Your task to perform on an android device: check android version Image 0: 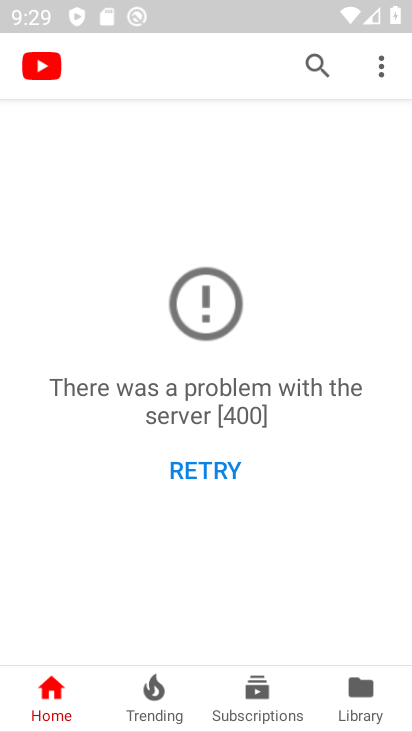
Step 0: press home button
Your task to perform on an android device: check android version Image 1: 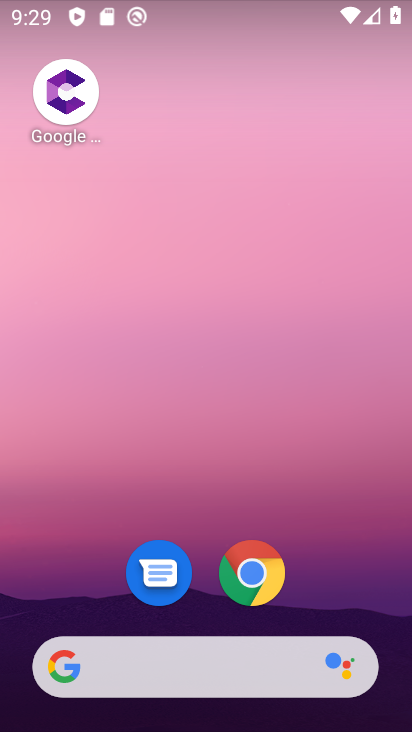
Step 1: drag from (199, 609) to (179, 180)
Your task to perform on an android device: check android version Image 2: 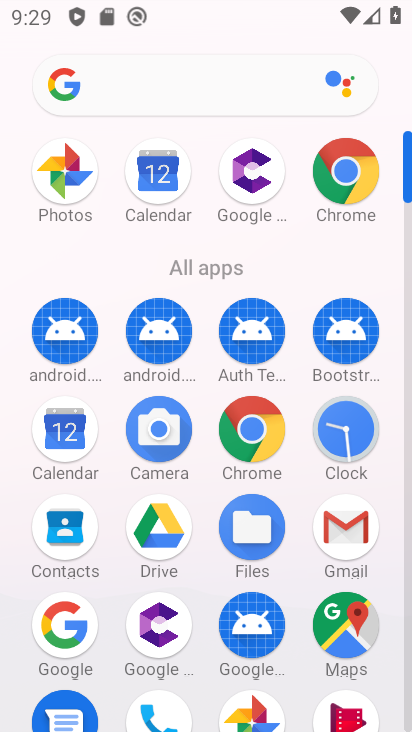
Step 2: drag from (219, 626) to (212, 403)
Your task to perform on an android device: check android version Image 3: 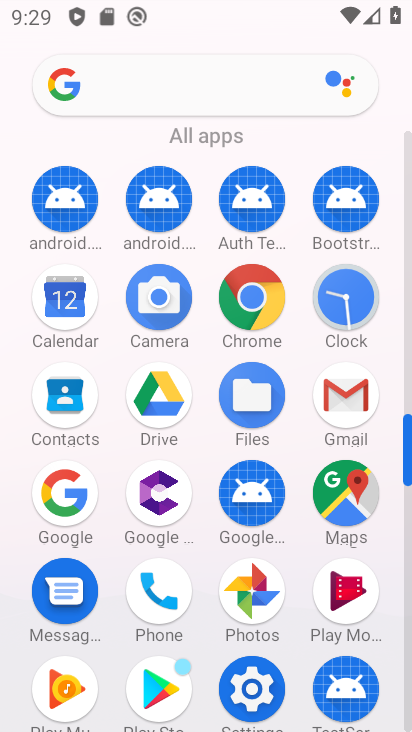
Step 3: click (237, 670)
Your task to perform on an android device: check android version Image 4: 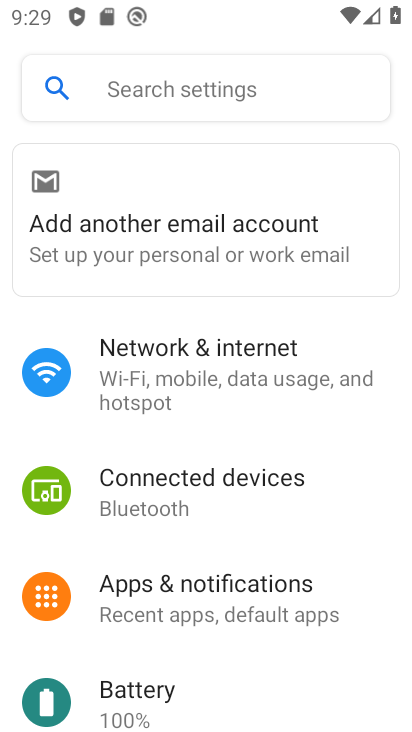
Step 4: drag from (240, 667) to (242, 317)
Your task to perform on an android device: check android version Image 5: 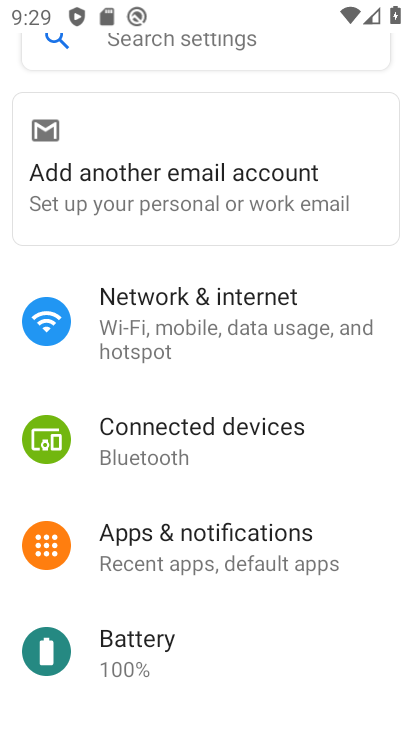
Step 5: drag from (233, 586) to (263, 308)
Your task to perform on an android device: check android version Image 6: 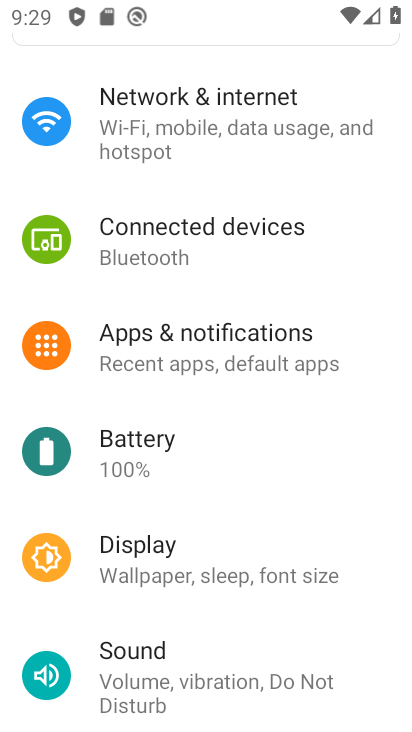
Step 6: drag from (276, 639) to (277, 319)
Your task to perform on an android device: check android version Image 7: 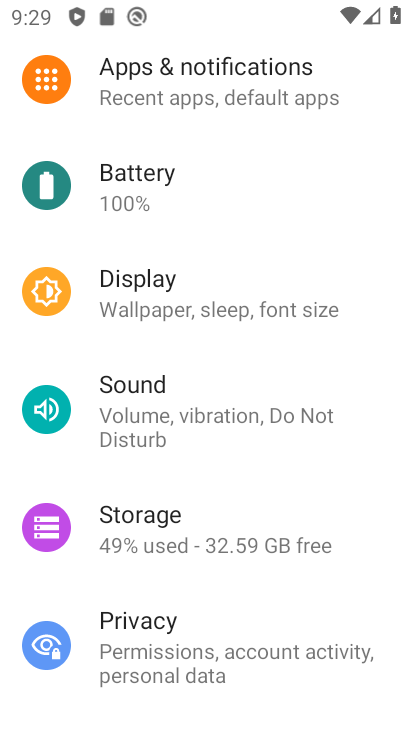
Step 7: drag from (233, 643) to (243, 341)
Your task to perform on an android device: check android version Image 8: 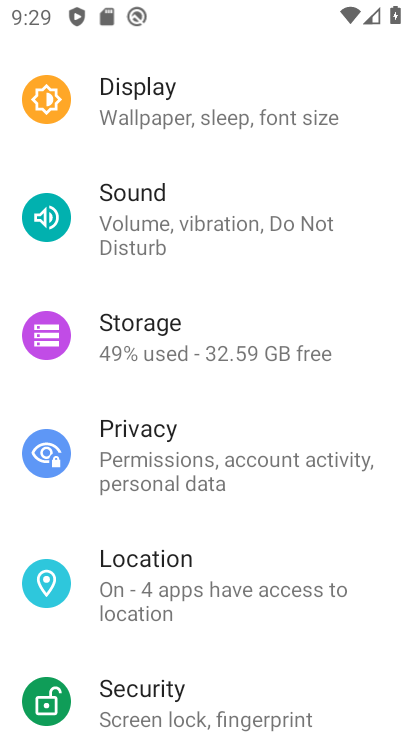
Step 8: drag from (210, 604) to (236, 286)
Your task to perform on an android device: check android version Image 9: 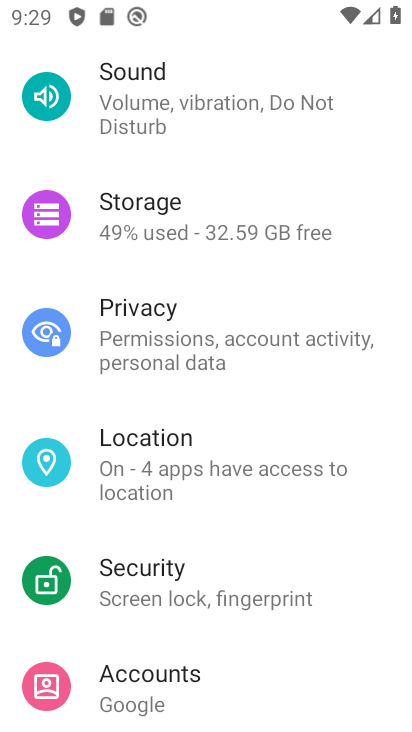
Step 9: drag from (238, 524) to (250, 243)
Your task to perform on an android device: check android version Image 10: 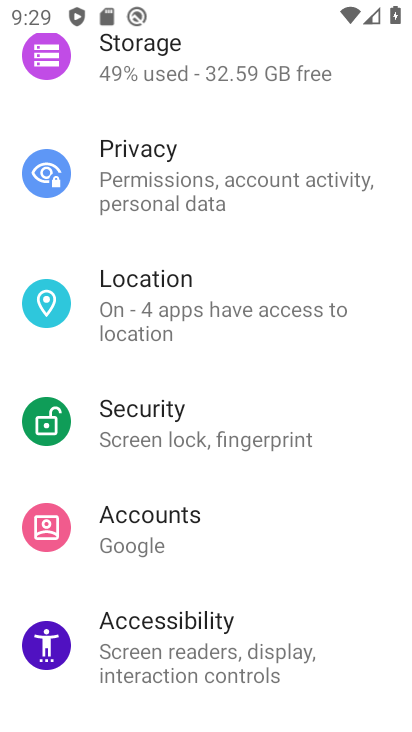
Step 10: drag from (250, 566) to (263, 283)
Your task to perform on an android device: check android version Image 11: 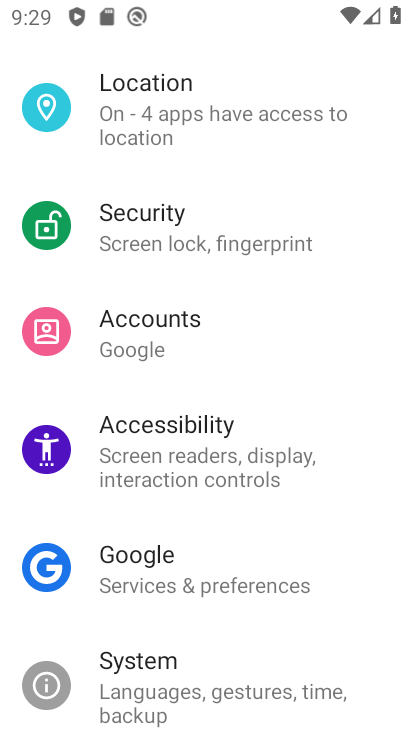
Step 11: drag from (249, 615) to (241, 344)
Your task to perform on an android device: check android version Image 12: 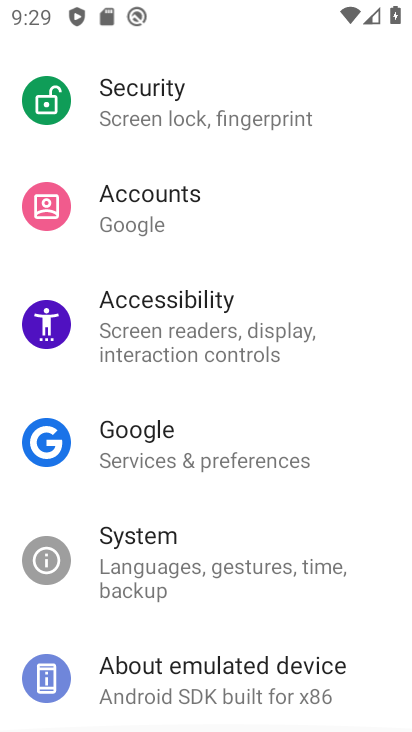
Step 12: drag from (249, 608) to (214, 255)
Your task to perform on an android device: check android version Image 13: 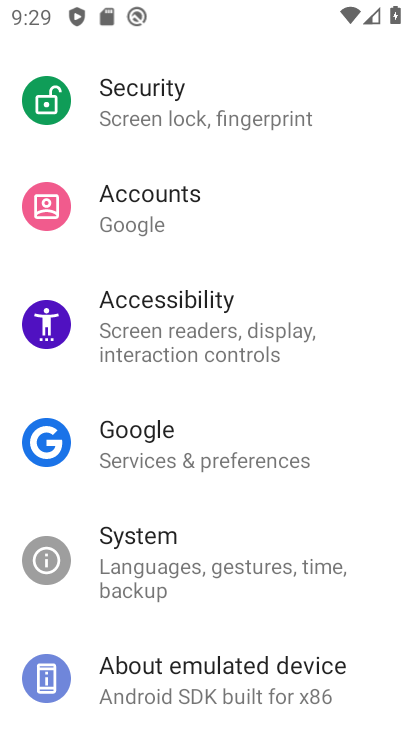
Step 13: drag from (208, 678) to (221, 369)
Your task to perform on an android device: check android version Image 14: 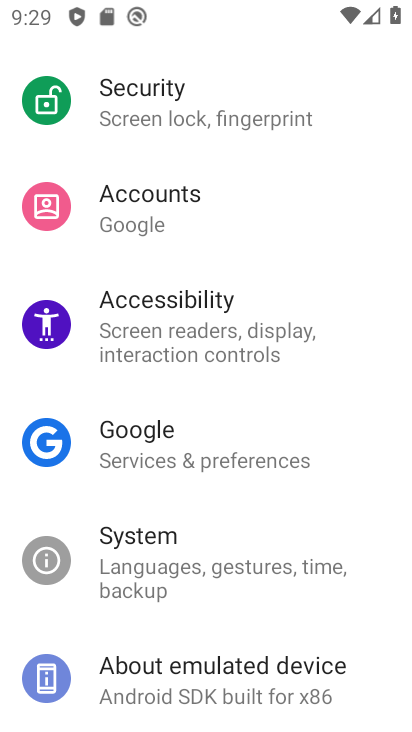
Step 14: click (206, 688)
Your task to perform on an android device: check android version Image 15: 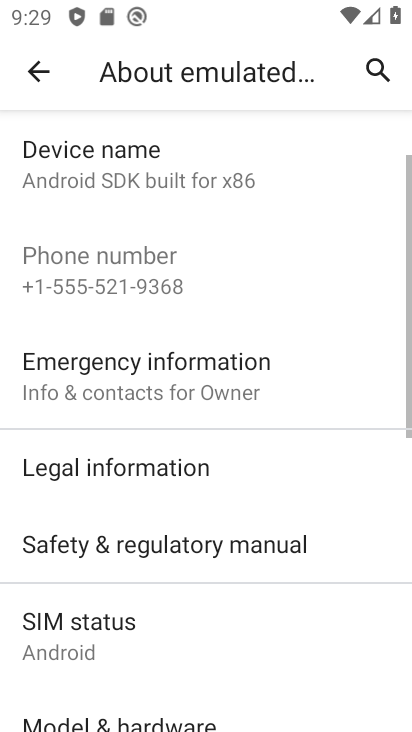
Step 15: drag from (202, 596) to (241, 274)
Your task to perform on an android device: check android version Image 16: 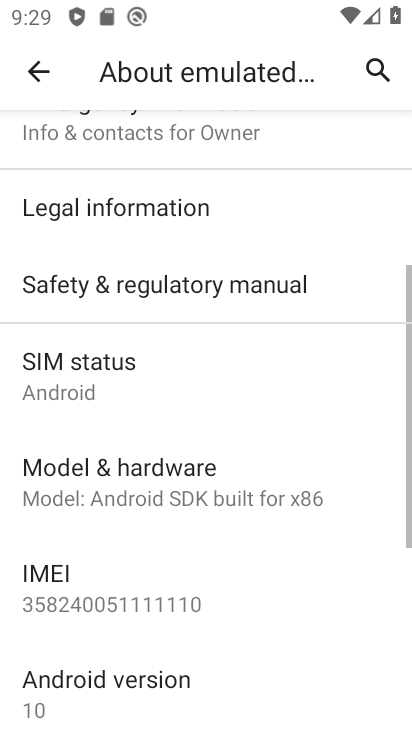
Step 16: click (124, 684)
Your task to perform on an android device: check android version Image 17: 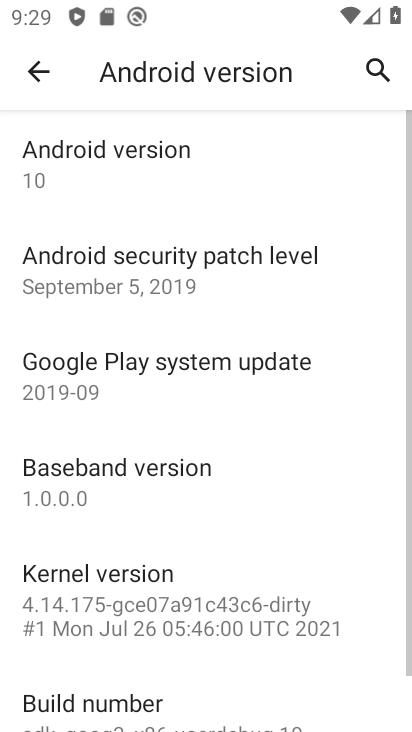
Step 17: click (113, 148)
Your task to perform on an android device: check android version Image 18: 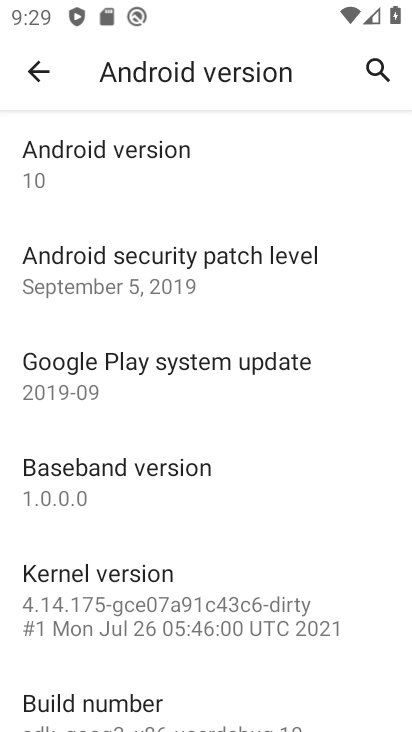
Step 18: task complete